Your task to perform on an android device: turn off sleep mode Image 0: 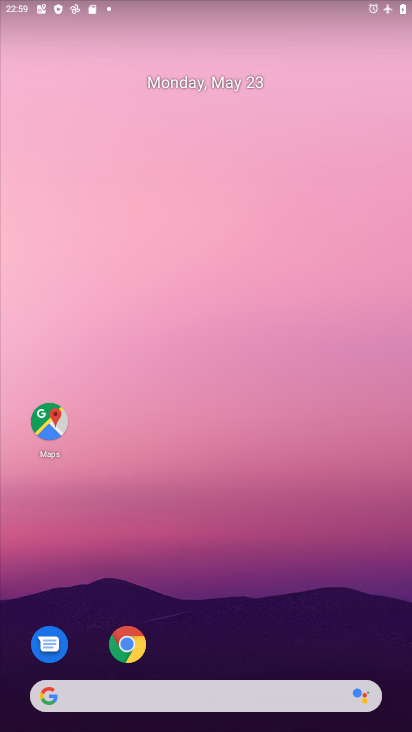
Step 0: drag from (267, 604) to (410, 42)
Your task to perform on an android device: turn off sleep mode Image 1: 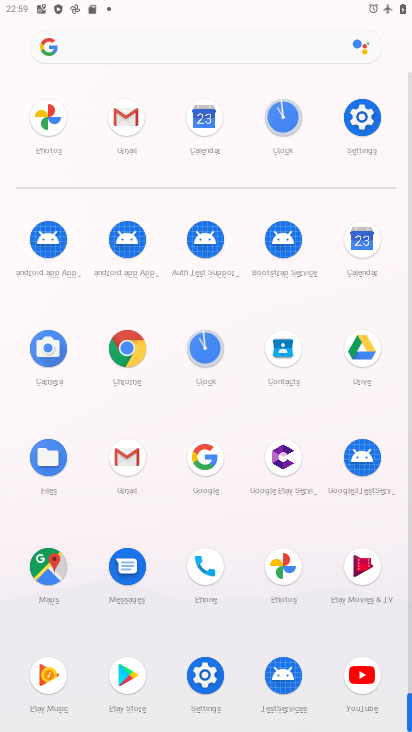
Step 1: click (357, 117)
Your task to perform on an android device: turn off sleep mode Image 2: 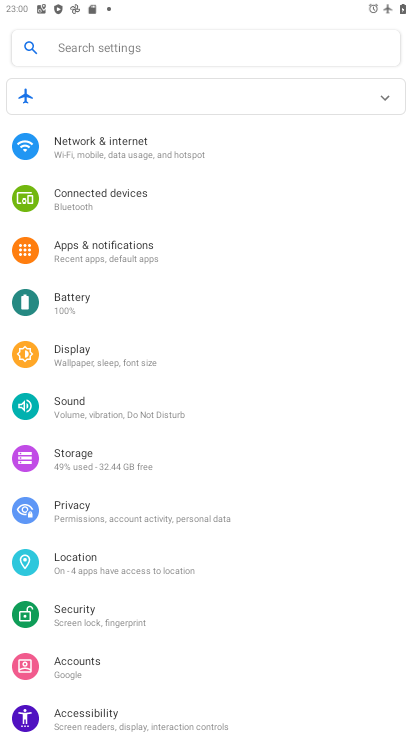
Step 2: click (196, 358)
Your task to perform on an android device: turn off sleep mode Image 3: 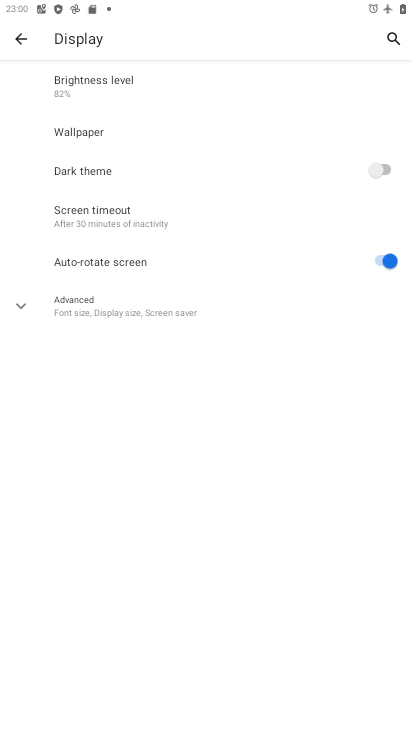
Step 3: task complete